Your task to perform on an android device: toggle airplane mode Image 0: 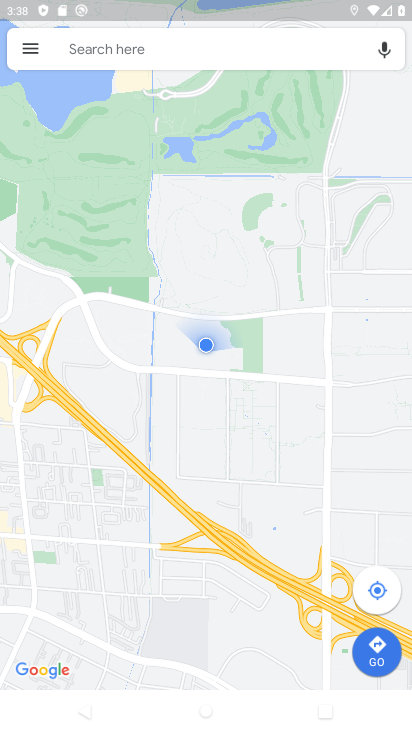
Step 0: press home button
Your task to perform on an android device: toggle airplane mode Image 1: 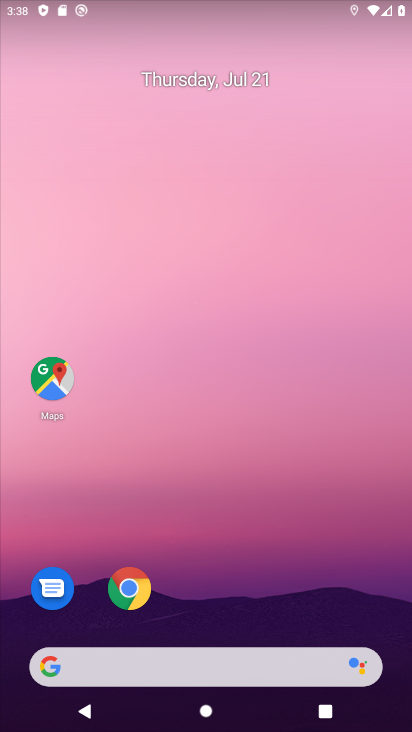
Step 1: drag from (330, 2) to (280, 415)
Your task to perform on an android device: toggle airplane mode Image 2: 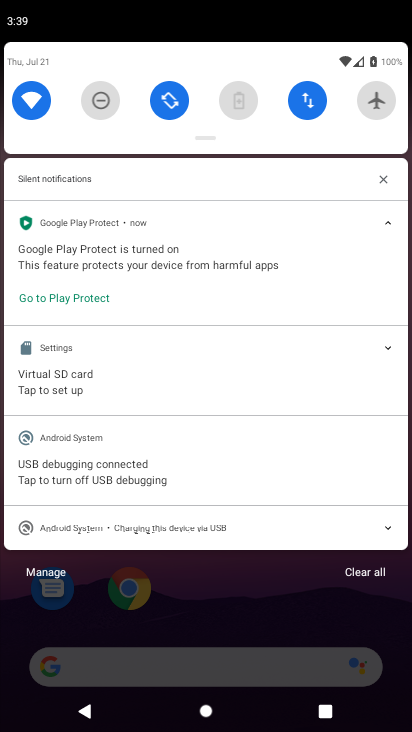
Step 2: click (376, 94)
Your task to perform on an android device: toggle airplane mode Image 3: 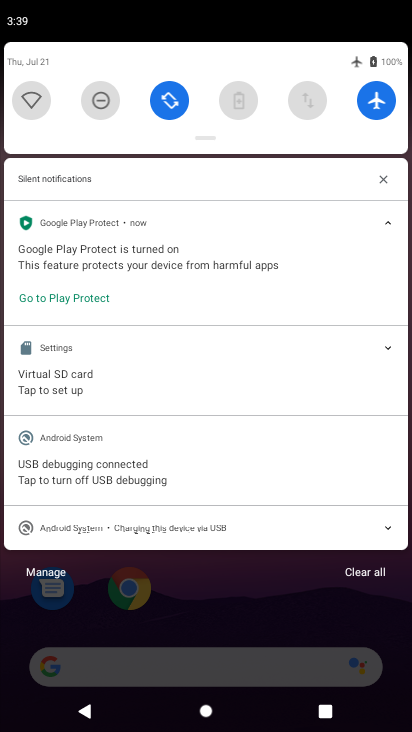
Step 3: task complete